Your task to perform on an android device: Go to Android settings Image 0: 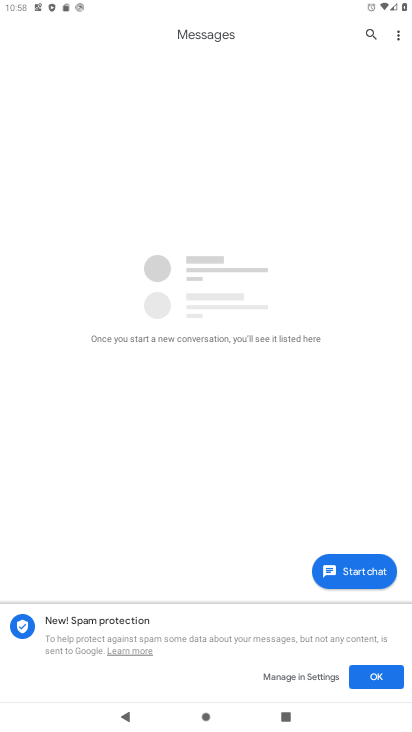
Step 0: press home button
Your task to perform on an android device: Go to Android settings Image 1: 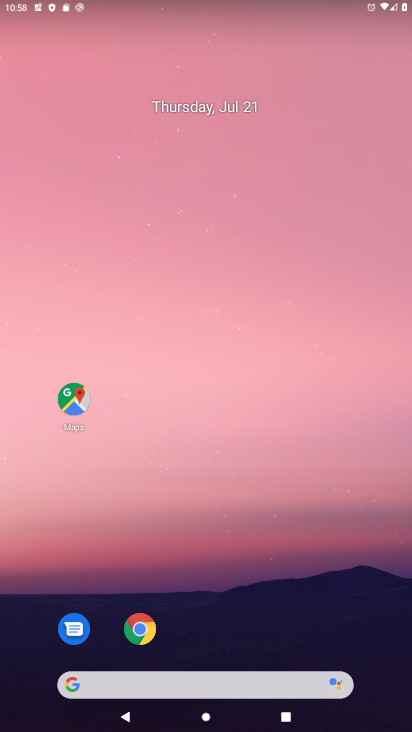
Step 1: drag from (230, 626) to (252, 96)
Your task to perform on an android device: Go to Android settings Image 2: 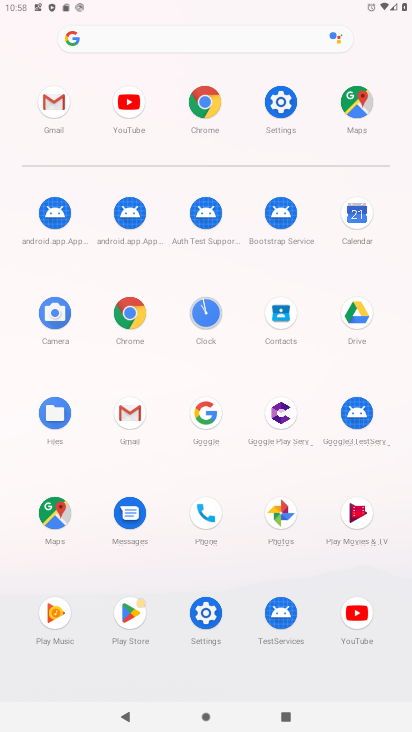
Step 2: click (284, 119)
Your task to perform on an android device: Go to Android settings Image 3: 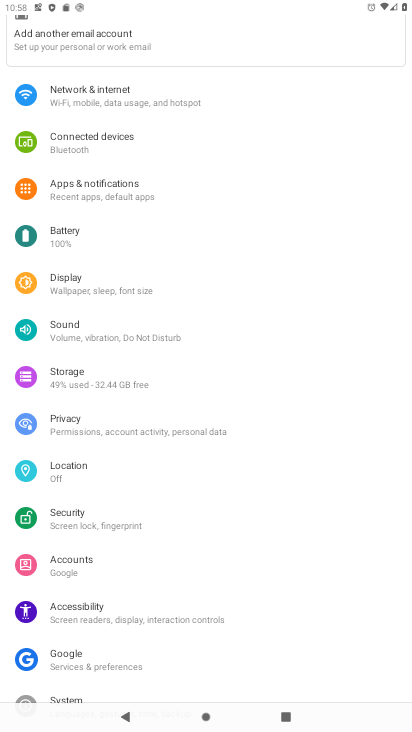
Step 3: task complete